Your task to perform on an android device: change the clock style Image 0: 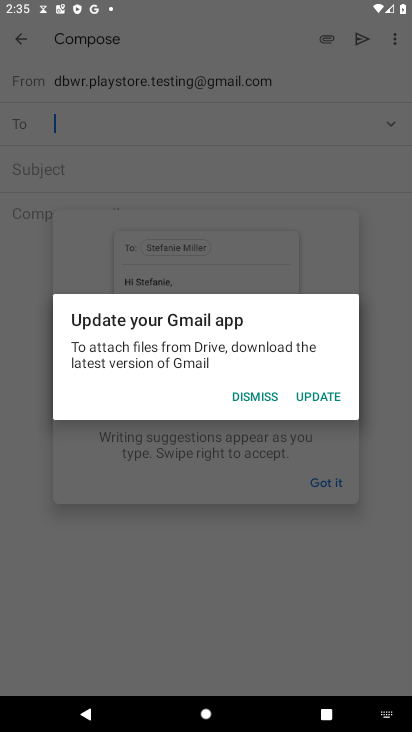
Step 0: press home button
Your task to perform on an android device: change the clock style Image 1: 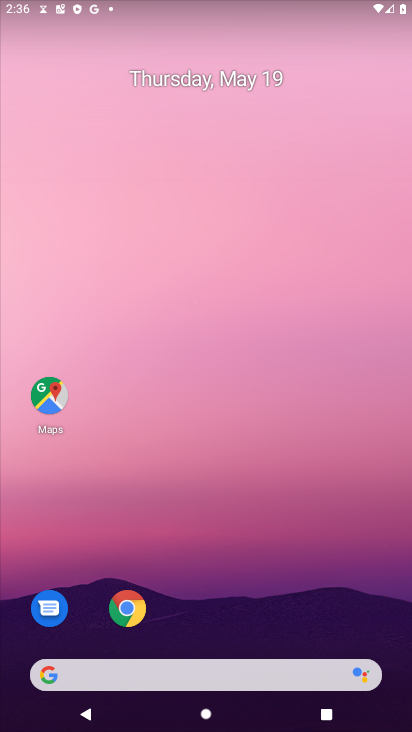
Step 1: drag from (282, 622) to (274, 127)
Your task to perform on an android device: change the clock style Image 2: 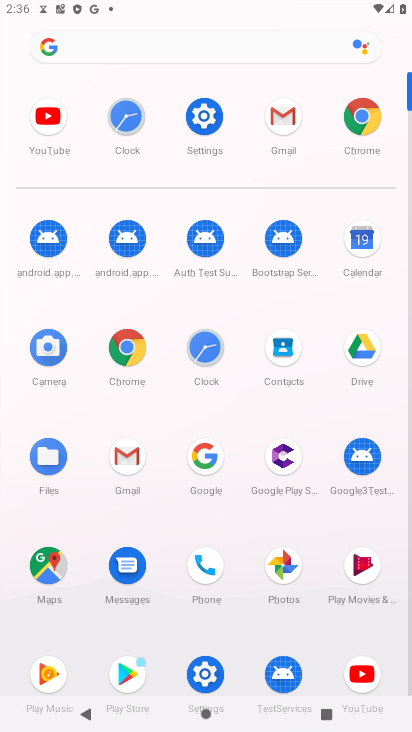
Step 2: click (126, 120)
Your task to perform on an android device: change the clock style Image 3: 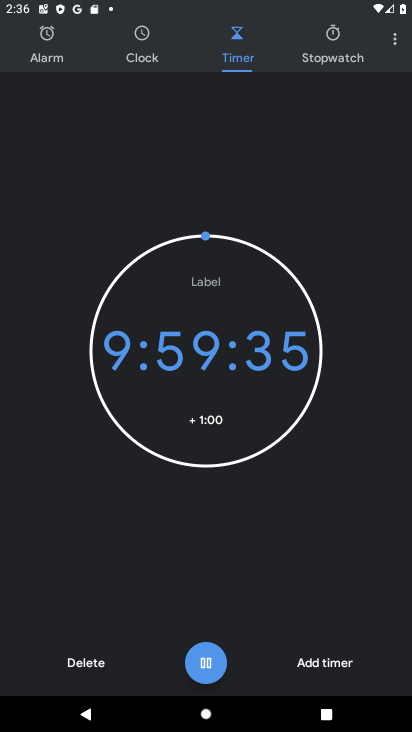
Step 3: click (388, 42)
Your task to perform on an android device: change the clock style Image 4: 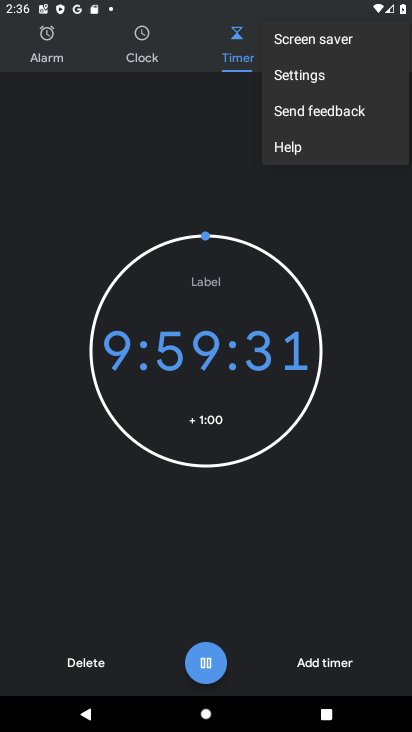
Step 4: click (371, 76)
Your task to perform on an android device: change the clock style Image 5: 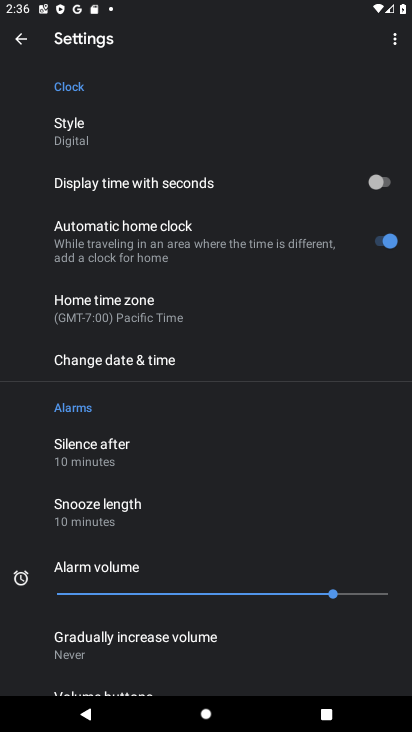
Step 5: click (247, 140)
Your task to perform on an android device: change the clock style Image 6: 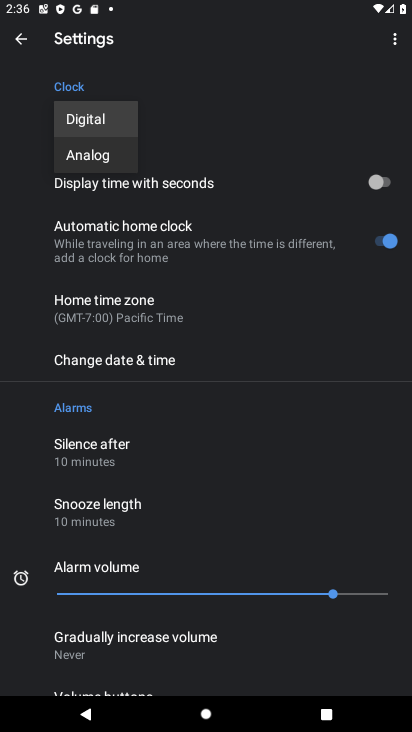
Step 6: click (89, 164)
Your task to perform on an android device: change the clock style Image 7: 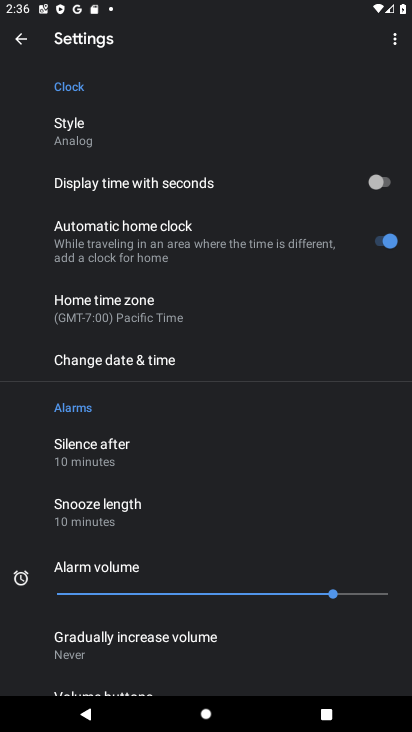
Step 7: task complete